Your task to perform on an android device: find which apps use the phone's location Image 0: 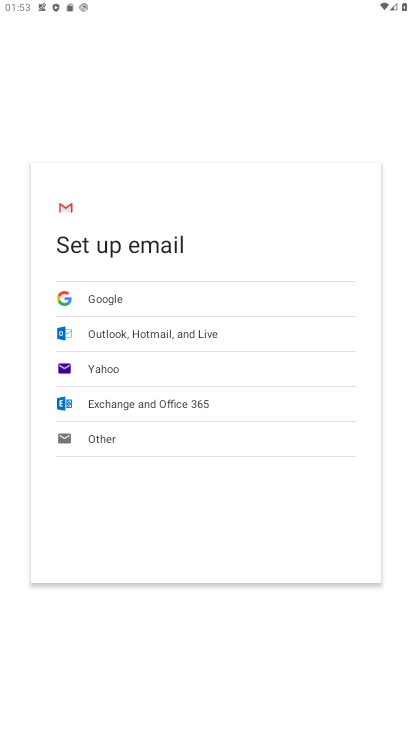
Step 0: press home button
Your task to perform on an android device: find which apps use the phone's location Image 1: 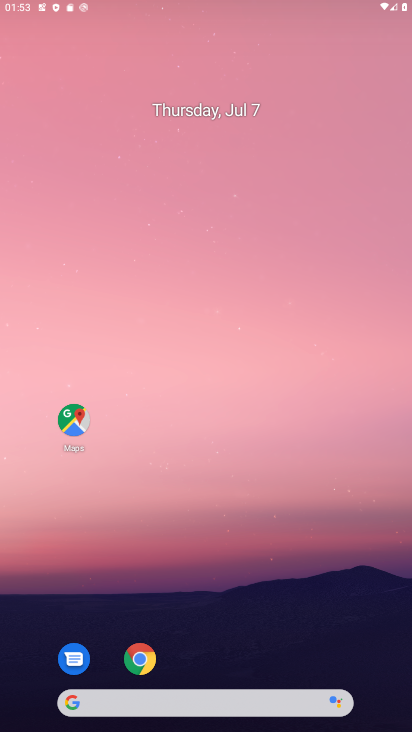
Step 1: drag from (222, 652) to (278, 81)
Your task to perform on an android device: find which apps use the phone's location Image 2: 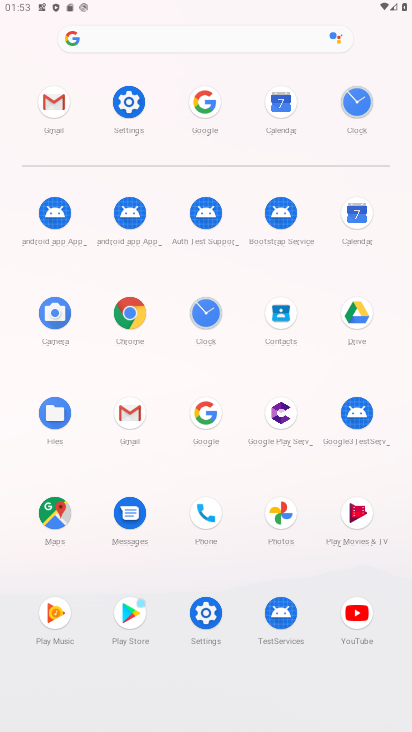
Step 2: click (132, 100)
Your task to perform on an android device: find which apps use the phone's location Image 3: 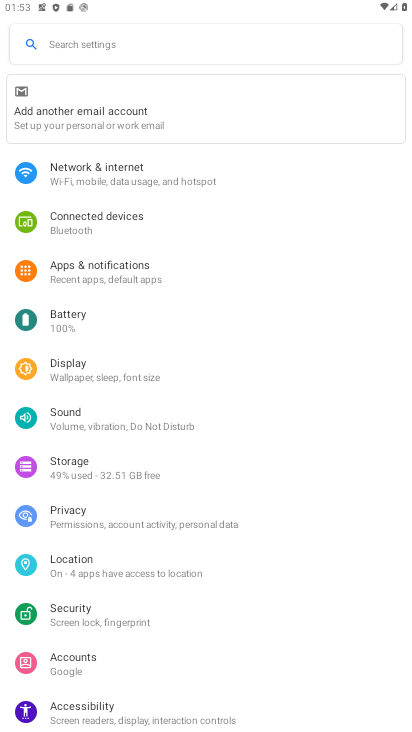
Step 3: click (89, 566)
Your task to perform on an android device: find which apps use the phone's location Image 4: 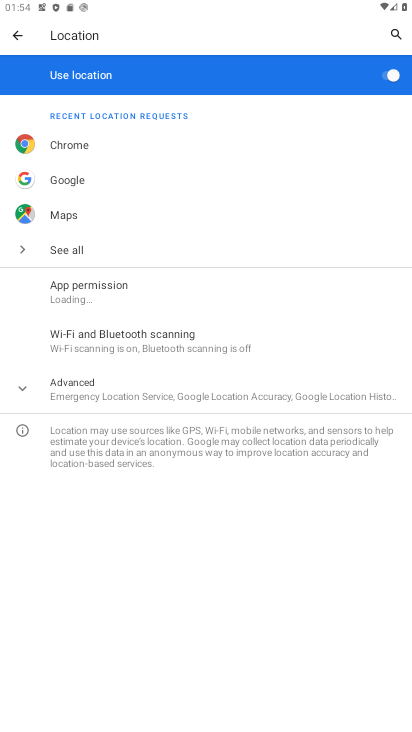
Step 4: click (91, 284)
Your task to perform on an android device: find which apps use the phone's location Image 5: 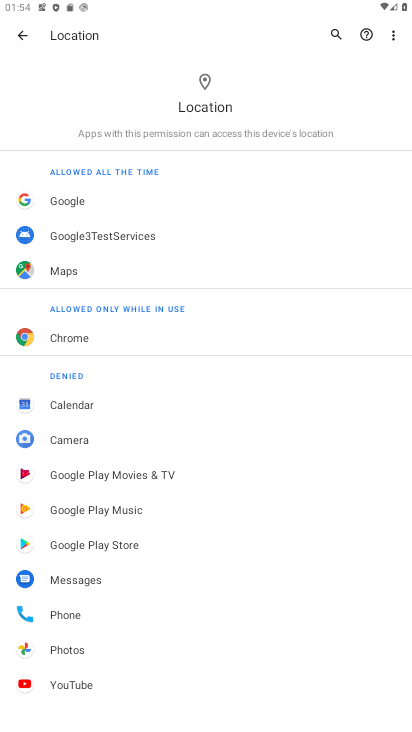
Step 5: task complete